Your task to perform on an android device: open a new tab in the chrome app Image 0: 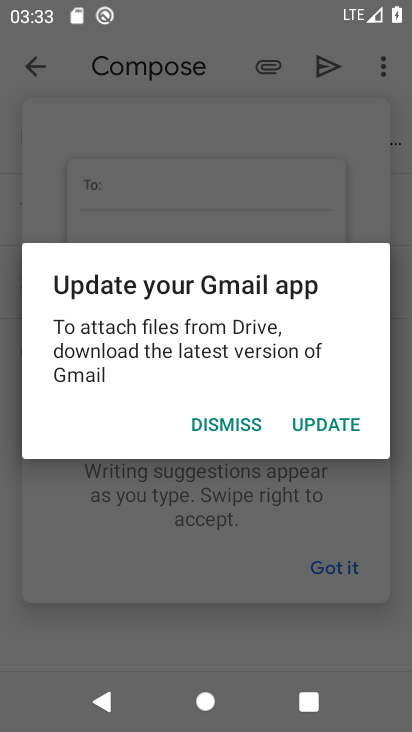
Step 0: press home button
Your task to perform on an android device: open a new tab in the chrome app Image 1: 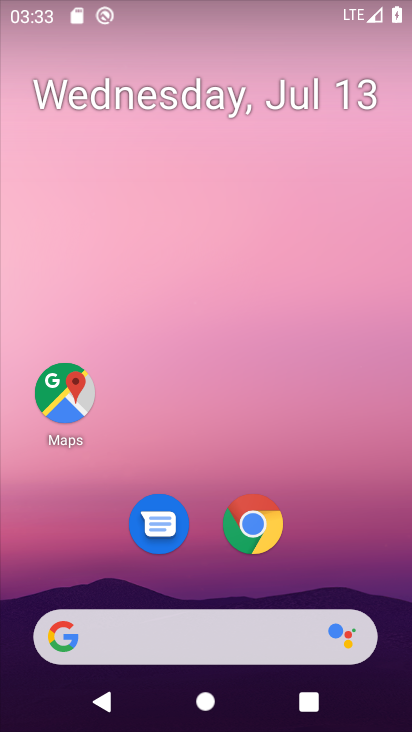
Step 1: click (267, 522)
Your task to perform on an android device: open a new tab in the chrome app Image 2: 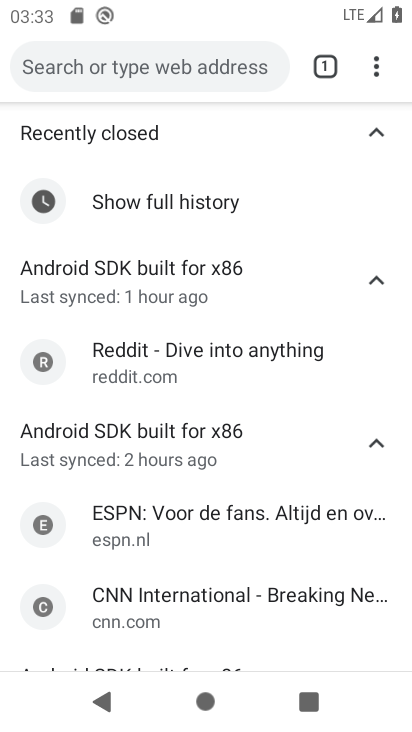
Step 2: click (371, 69)
Your task to perform on an android device: open a new tab in the chrome app Image 3: 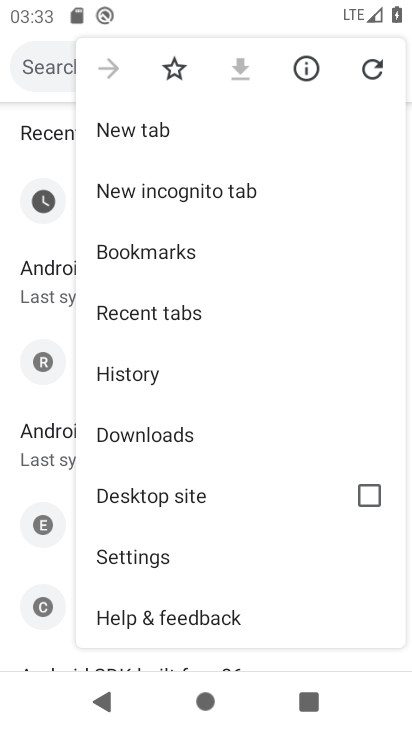
Step 3: click (231, 128)
Your task to perform on an android device: open a new tab in the chrome app Image 4: 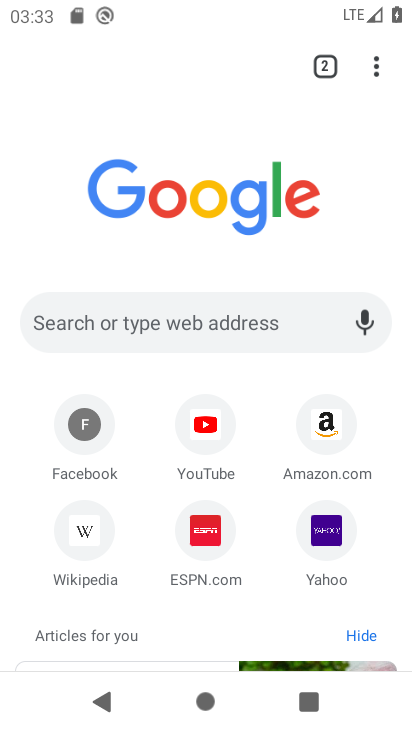
Step 4: task complete